Your task to perform on an android device: move an email to a new category in the gmail app Image 0: 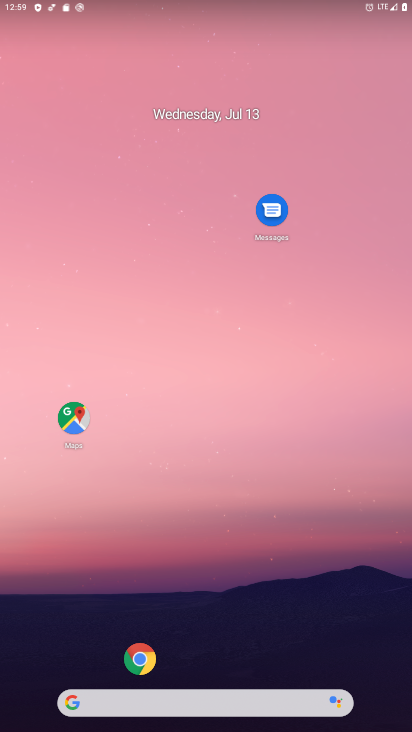
Step 0: drag from (38, 687) to (399, 154)
Your task to perform on an android device: move an email to a new category in the gmail app Image 1: 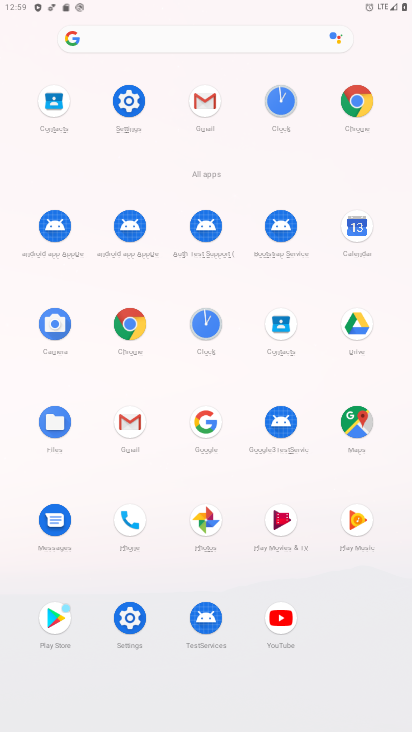
Step 1: click (138, 436)
Your task to perform on an android device: move an email to a new category in the gmail app Image 2: 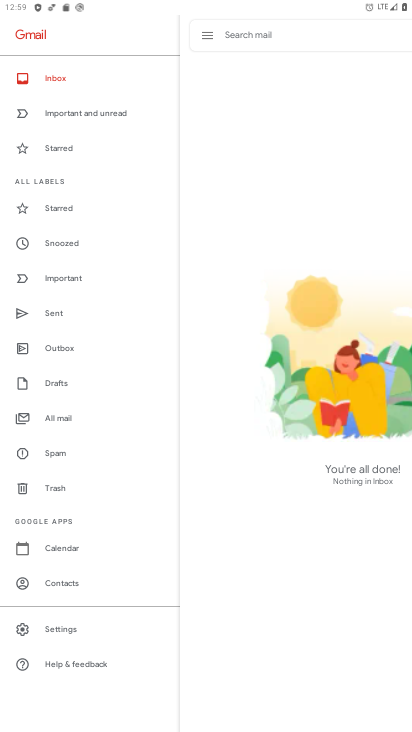
Step 2: click (78, 83)
Your task to perform on an android device: move an email to a new category in the gmail app Image 3: 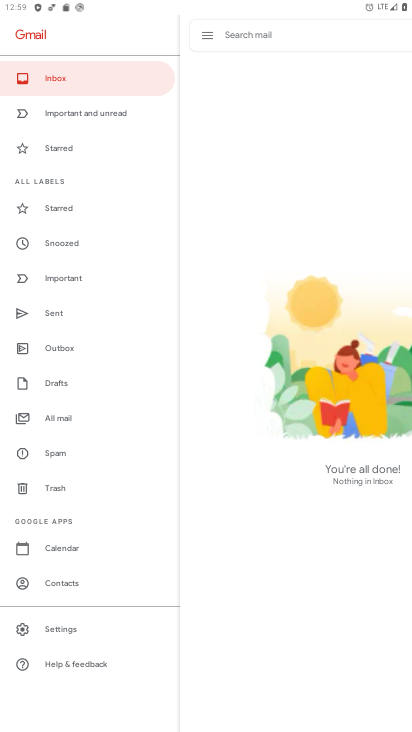
Step 3: task complete